Your task to perform on an android device: change text size in settings app Image 0: 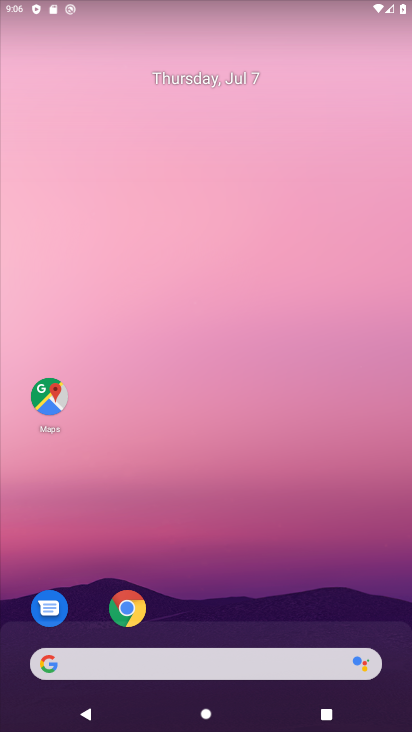
Step 0: drag from (215, 604) to (226, 109)
Your task to perform on an android device: change text size in settings app Image 1: 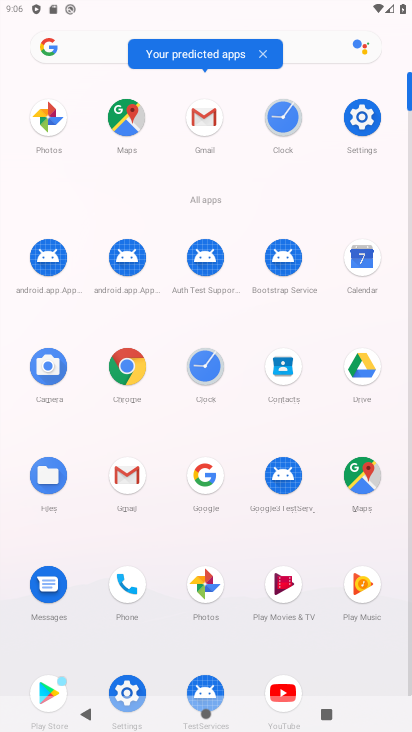
Step 1: click (361, 118)
Your task to perform on an android device: change text size in settings app Image 2: 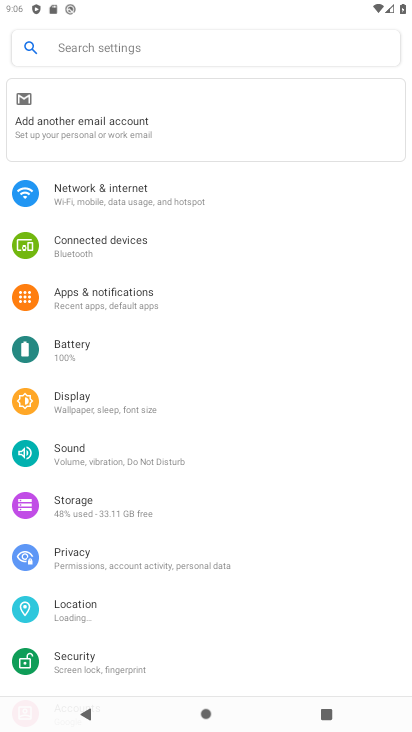
Step 2: click (136, 397)
Your task to perform on an android device: change text size in settings app Image 3: 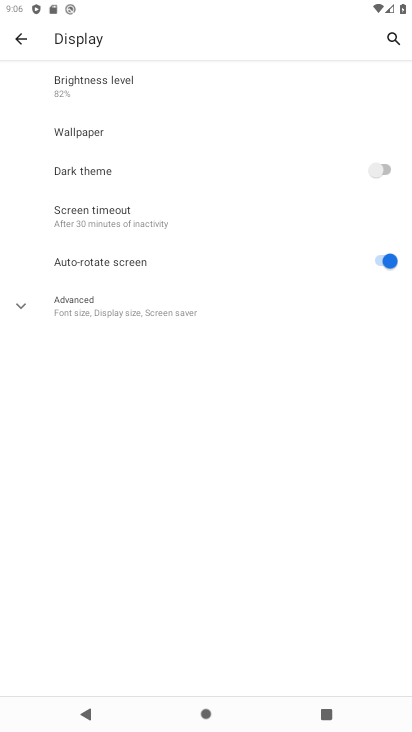
Step 3: click (140, 313)
Your task to perform on an android device: change text size in settings app Image 4: 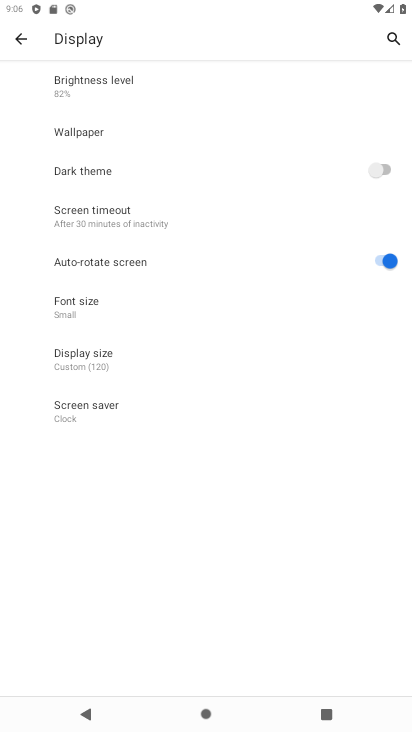
Step 4: click (88, 305)
Your task to perform on an android device: change text size in settings app Image 5: 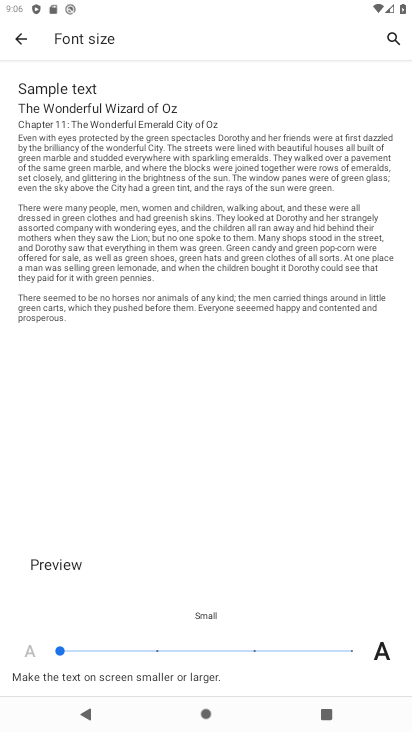
Step 5: task complete